Your task to perform on an android device: turn off location history Image 0: 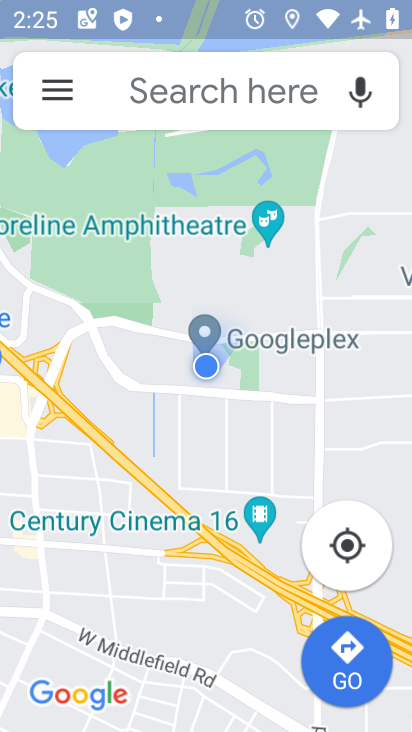
Step 0: press home button
Your task to perform on an android device: turn off location history Image 1: 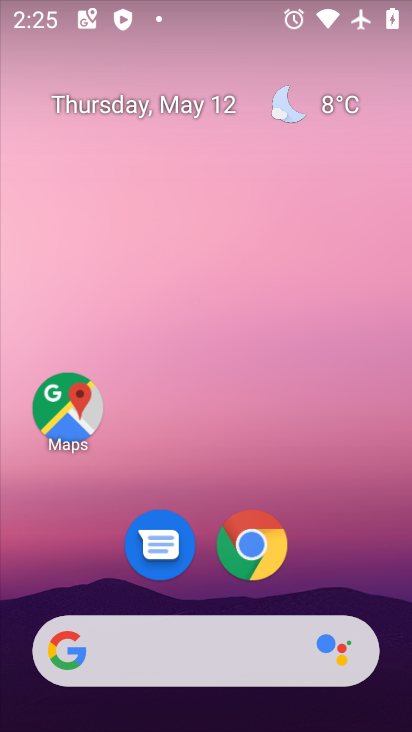
Step 1: click (74, 409)
Your task to perform on an android device: turn off location history Image 2: 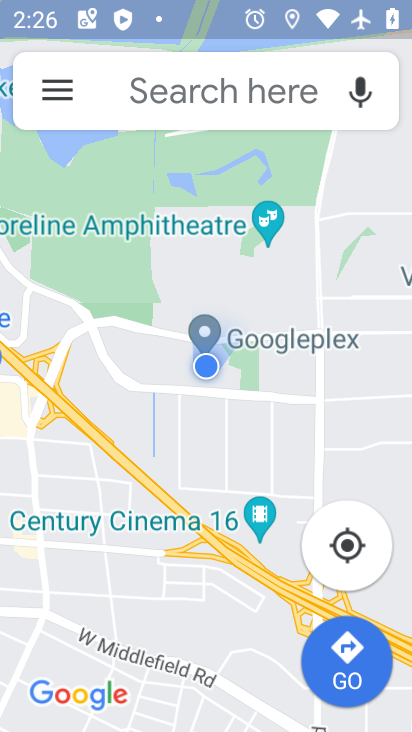
Step 2: click (56, 93)
Your task to perform on an android device: turn off location history Image 3: 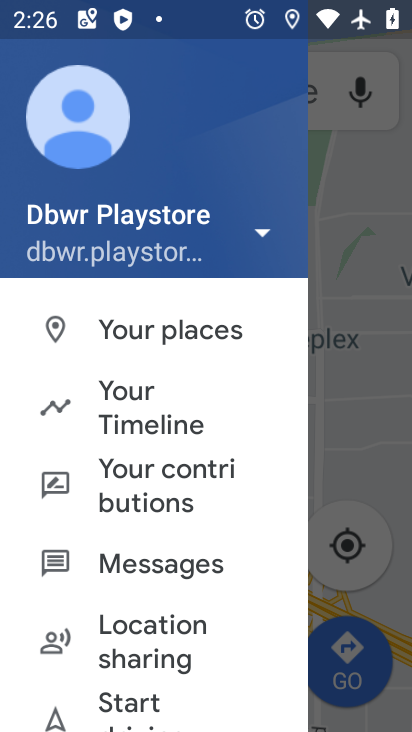
Step 3: drag from (255, 492) to (206, 93)
Your task to perform on an android device: turn off location history Image 4: 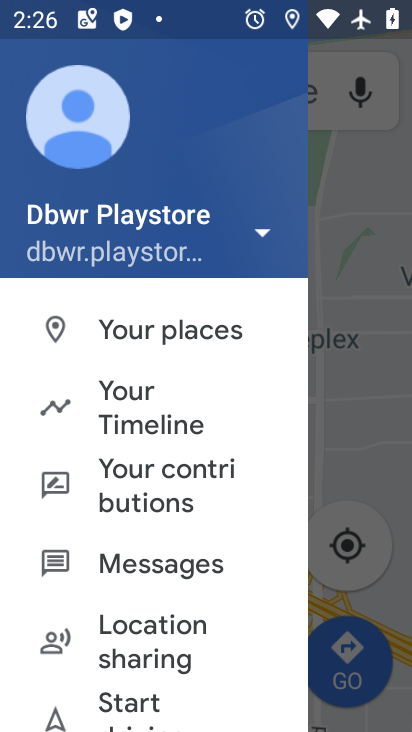
Step 4: drag from (219, 484) to (255, 114)
Your task to perform on an android device: turn off location history Image 5: 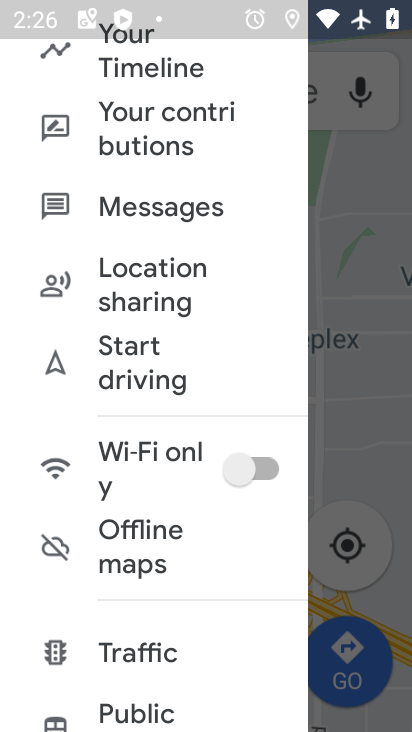
Step 5: drag from (198, 294) to (216, 116)
Your task to perform on an android device: turn off location history Image 6: 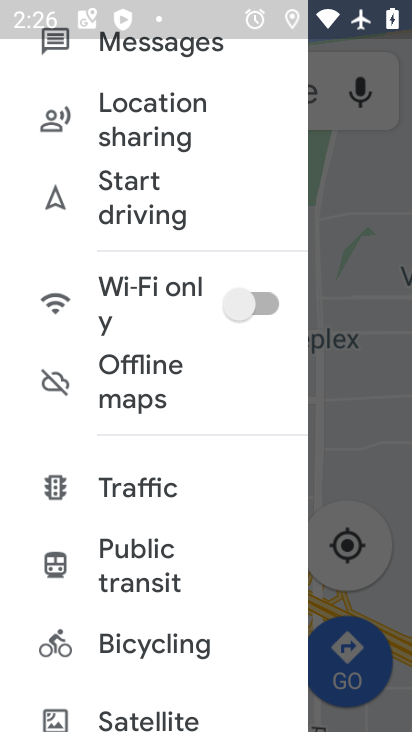
Step 6: drag from (198, 579) to (210, 124)
Your task to perform on an android device: turn off location history Image 7: 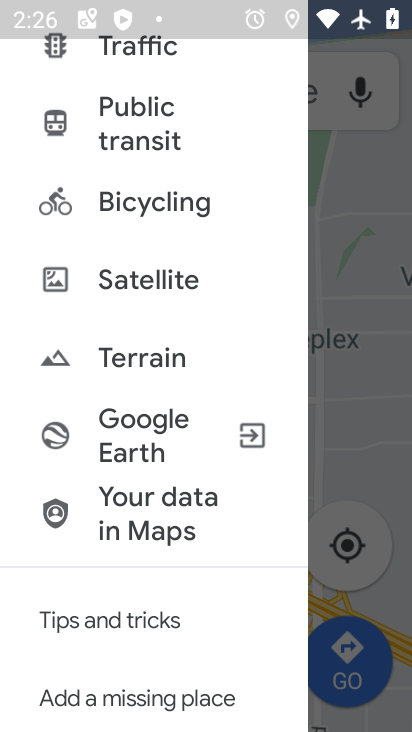
Step 7: drag from (176, 552) to (210, 93)
Your task to perform on an android device: turn off location history Image 8: 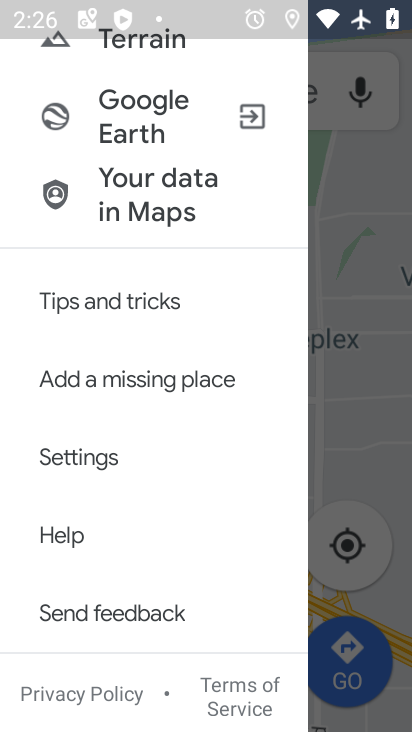
Step 8: click (76, 449)
Your task to perform on an android device: turn off location history Image 9: 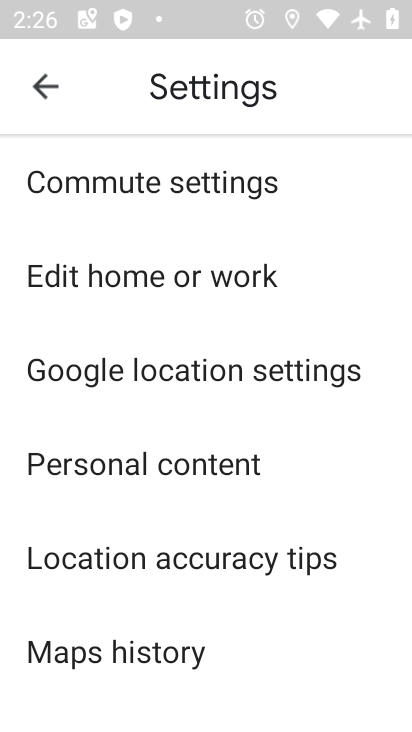
Step 9: click (92, 453)
Your task to perform on an android device: turn off location history Image 10: 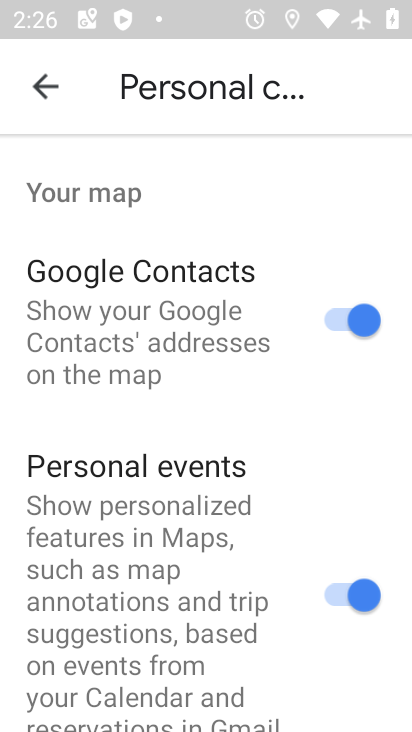
Step 10: task complete